Your task to perform on an android device: turn pop-ups off in chrome Image 0: 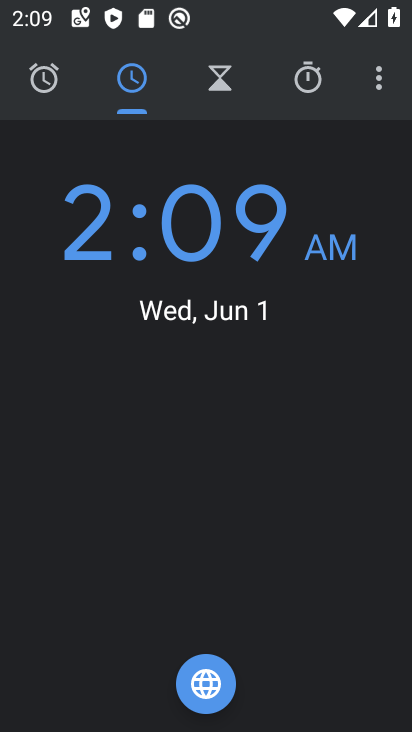
Step 0: press home button
Your task to perform on an android device: turn pop-ups off in chrome Image 1: 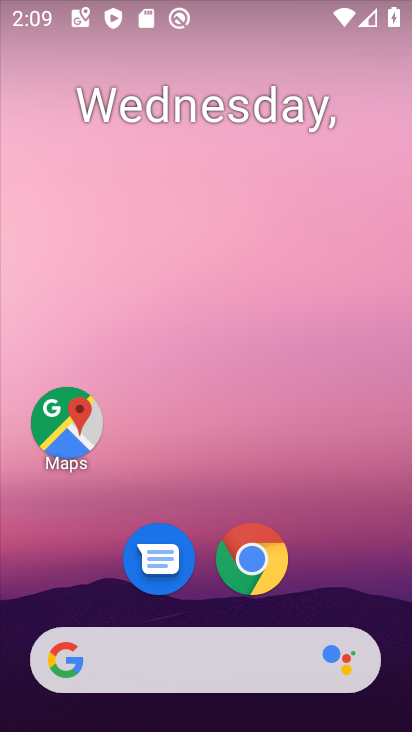
Step 1: click (267, 549)
Your task to perform on an android device: turn pop-ups off in chrome Image 2: 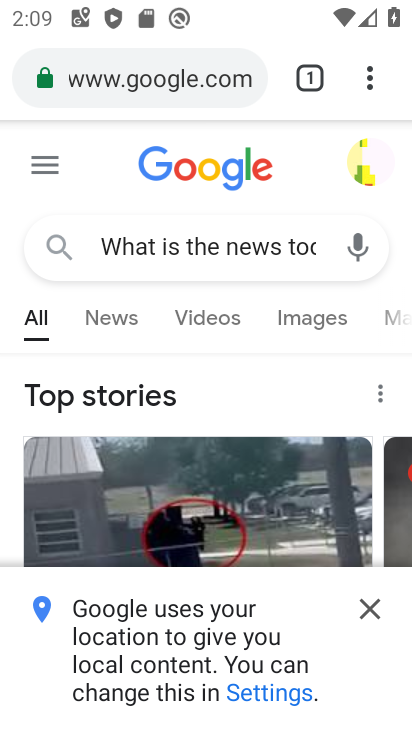
Step 2: drag from (370, 95) to (289, 610)
Your task to perform on an android device: turn pop-ups off in chrome Image 3: 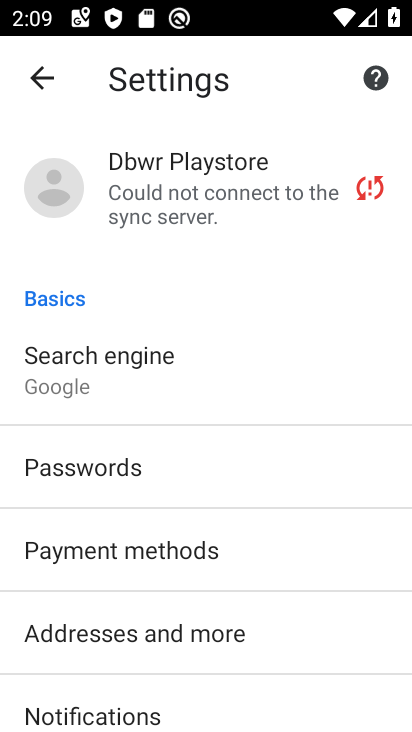
Step 3: drag from (206, 648) to (205, 310)
Your task to perform on an android device: turn pop-ups off in chrome Image 4: 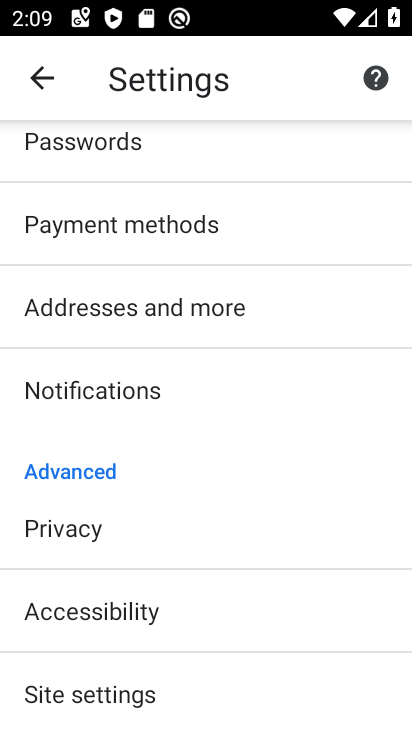
Step 4: drag from (160, 590) to (255, 232)
Your task to perform on an android device: turn pop-ups off in chrome Image 5: 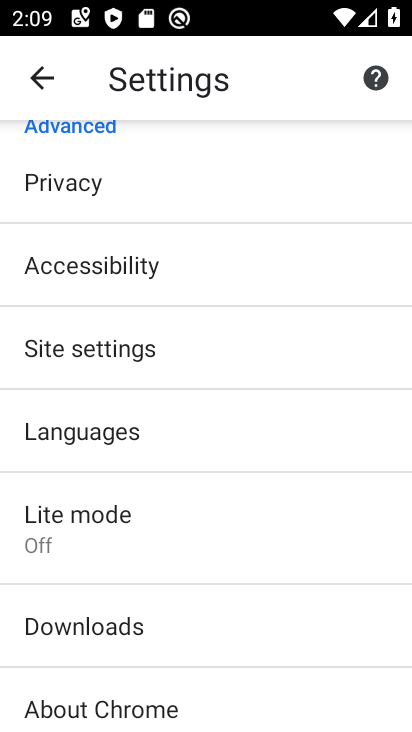
Step 5: click (90, 339)
Your task to perform on an android device: turn pop-ups off in chrome Image 6: 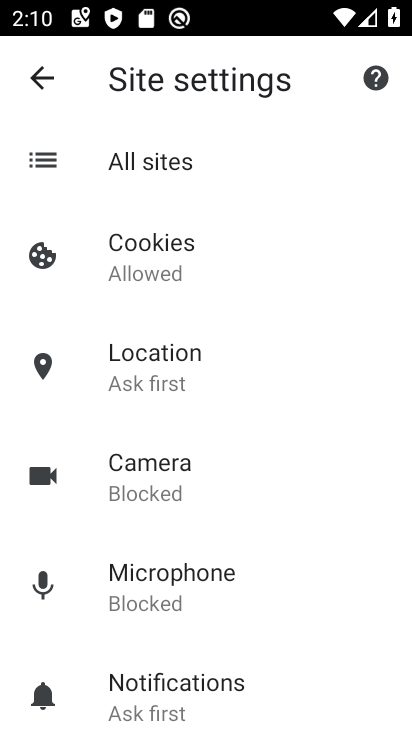
Step 6: drag from (225, 547) to (220, 178)
Your task to perform on an android device: turn pop-ups off in chrome Image 7: 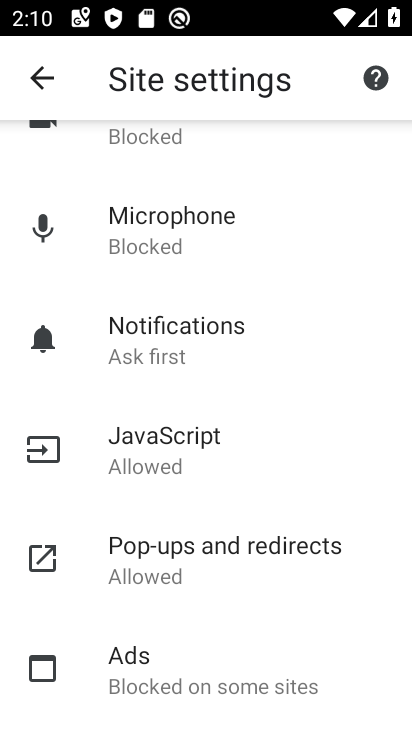
Step 7: click (220, 564)
Your task to perform on an android device: turn pop-ups off in chrome Image 8: 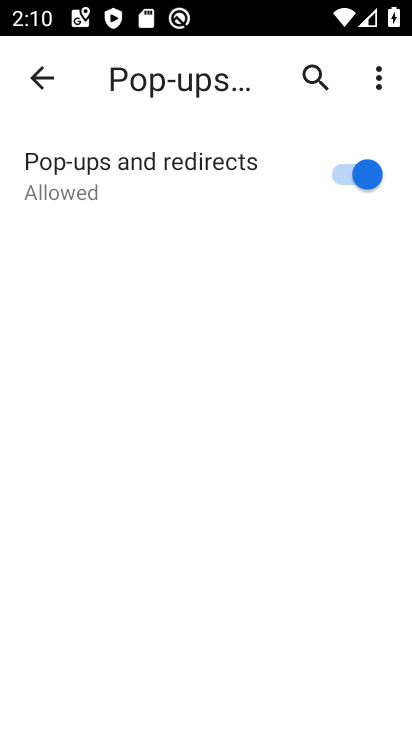
Step 8: click (197, 202)
Your task to perform on an android device: turn pop-ups off in chrome Image 9: 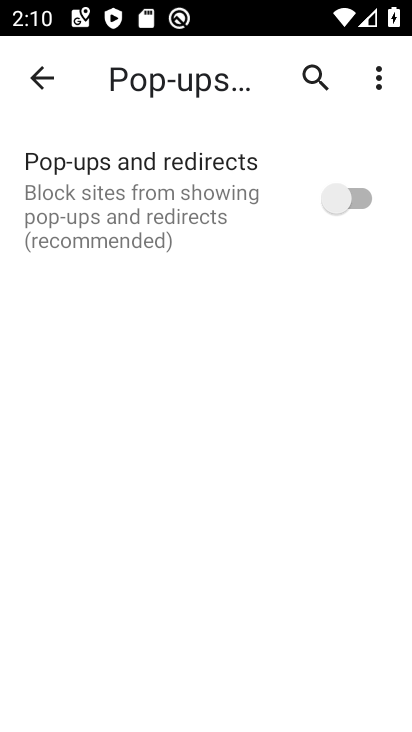
Step 9: task complete